Your task to perform on an android device: Add logitech g502 to the cart on costco.com Image 0: 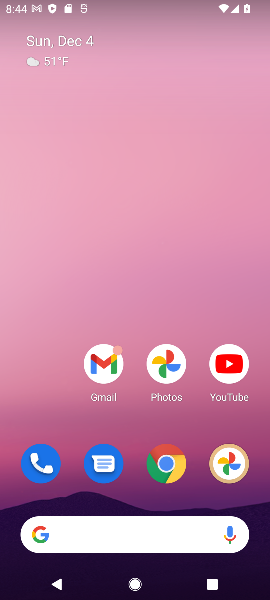
Step 0: click (136, 548)
Your task to perform on an android device: Add logitech g502 to the cart on costco.com Image 1: 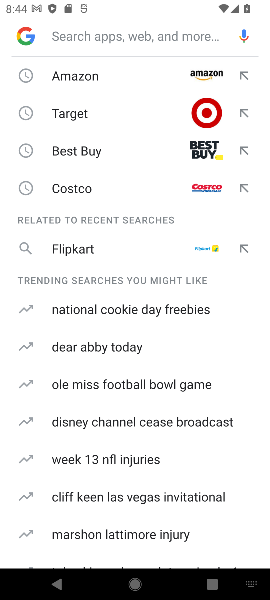
Step 1: type "co"
Your task to perform on an android device: Add logitech g502 to the cart on costco.com Image 2: 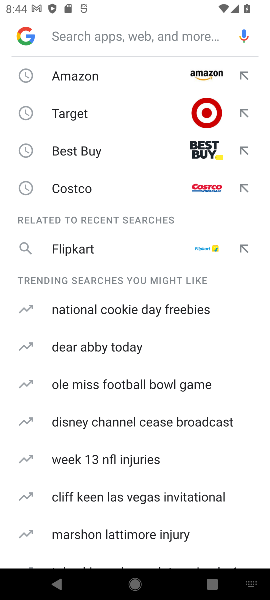
Step 2: click (129, 200)
Your task to perform on an android device: Add logitech g502 to the cart on costco.com Image 3: 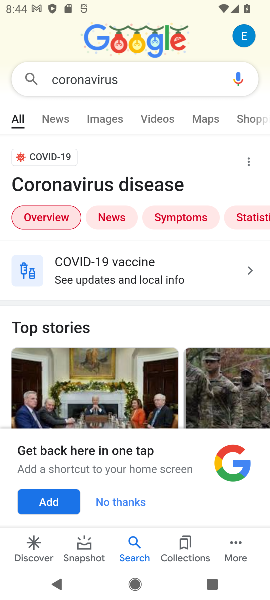
Step 3: task complete